Your task to perform on an android device: set default search engine in the chrome app Image 0: 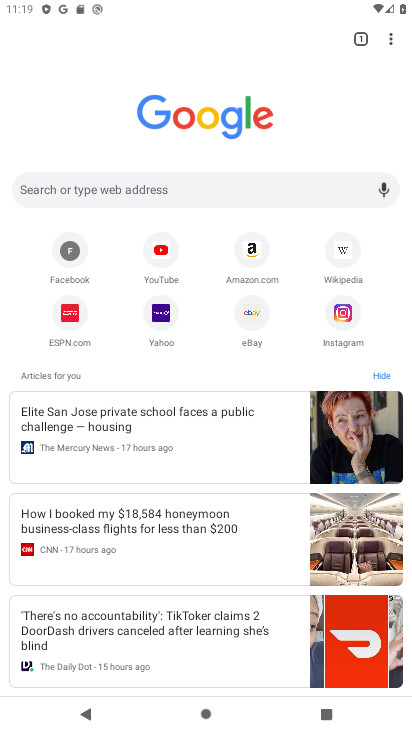
Step 0: press home button
Your task to perform on an android device: set default search engine in the chrome app Image 1: 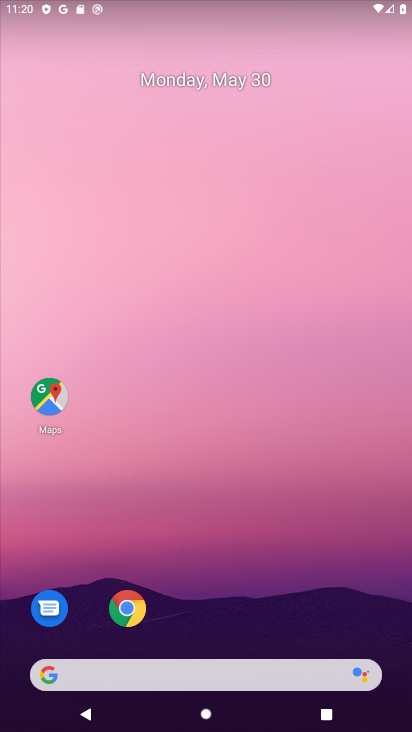
Step 1: click (143, 616)
Your task to perform on an android device: set default search engine in the chrome app Image 2: 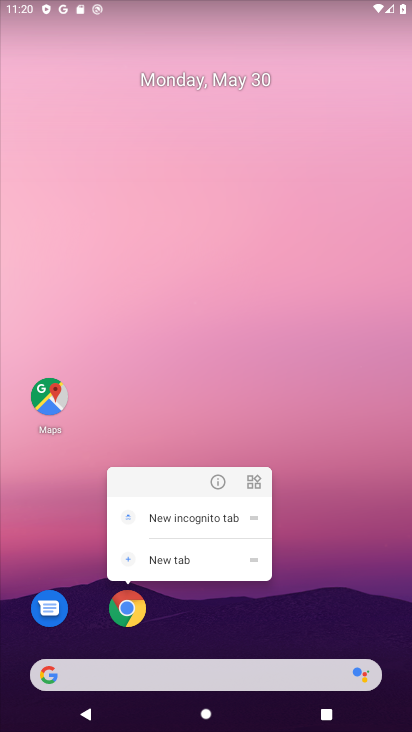
Step 2: click (129, 612)
Your task to perform on an android device: set default search engine in the chrome app Image 3: 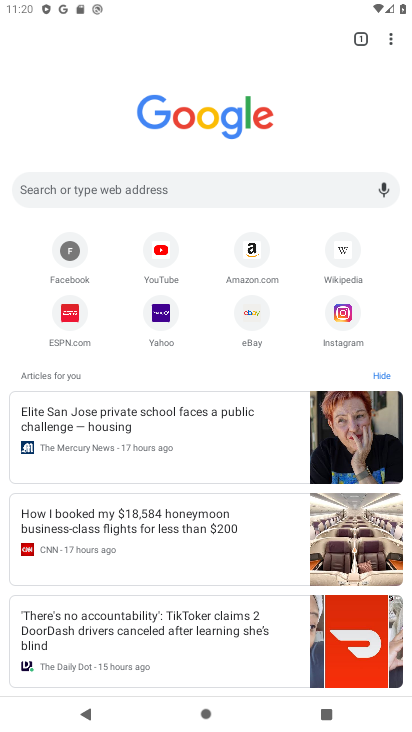
Step 3: click (387, 43)
Your task to perform on an android device: set default search engine in the chrome app Image 4: 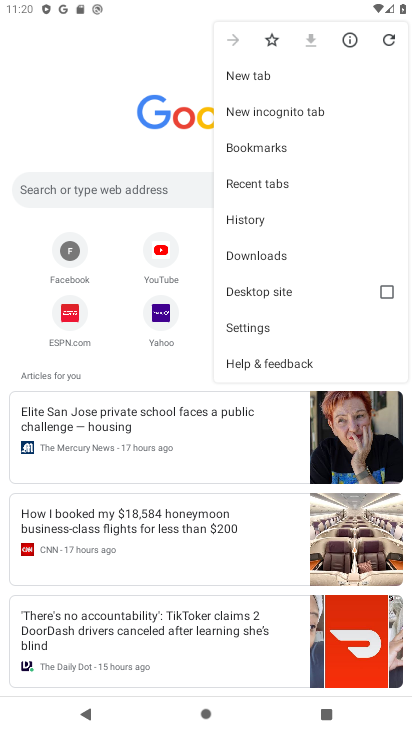
Step 4: click (302, 330)
Your task to perform on an android device: set default search engine in the chrome app Image 5: 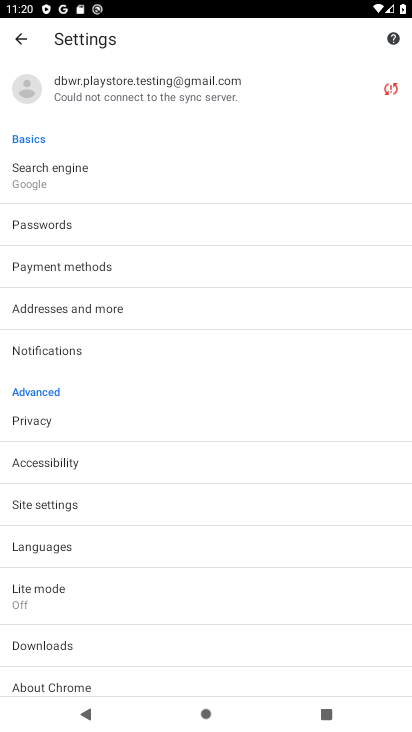
Step 5: click (46, 186)
Your task to perform on an android device: set default search engine in the chrome app Image 6: 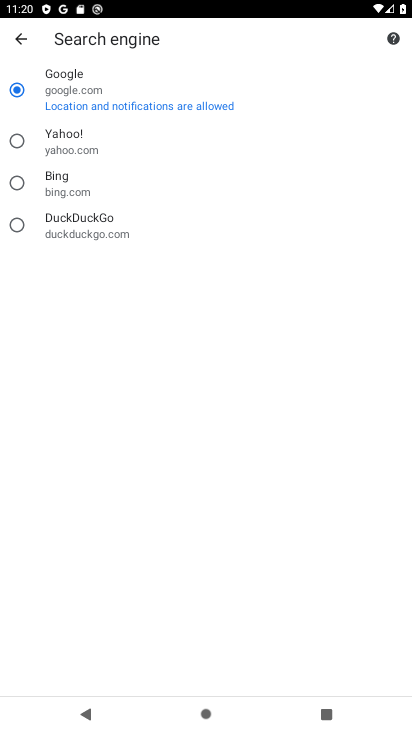
Step 6: click (76, 143)
Your task to perform on an android device: set default search engine in the chrome app Image 7: 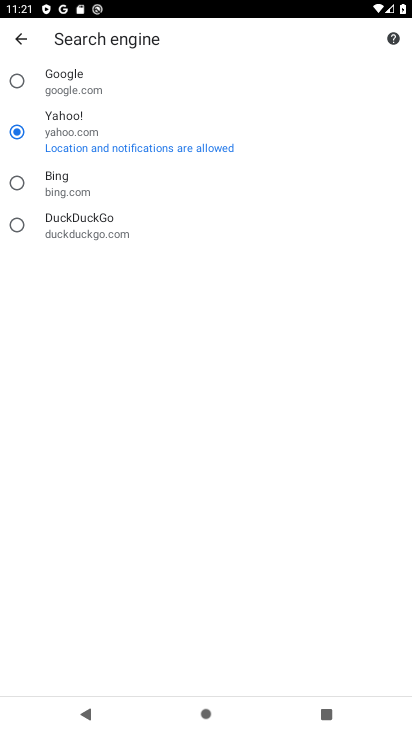
Step 7: task complete